Your task to perform on an android device: check data usage Image 0: 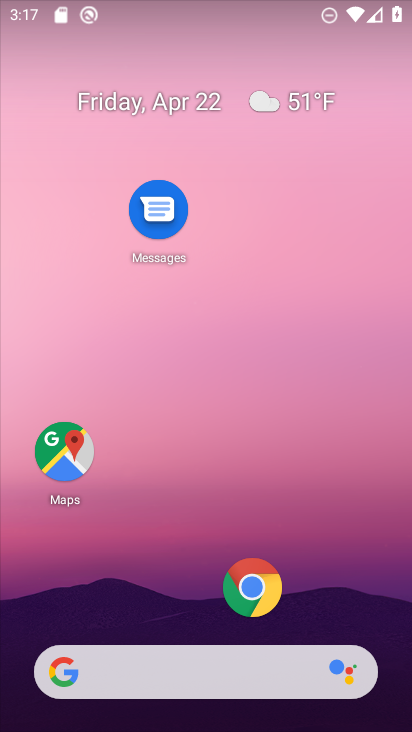
Step 0: drag from (185, 602) to (207, 210)
Your task to perform on an android device: check data usage Image 1: 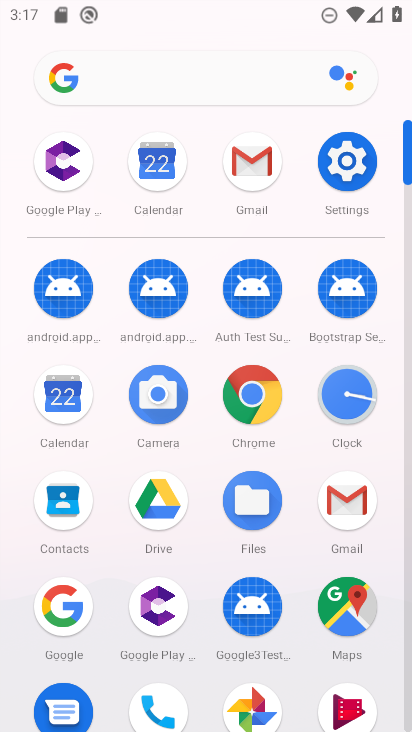
Step 1: click (331, 174)
Your task to perform on an android device: check data usage Image 2: 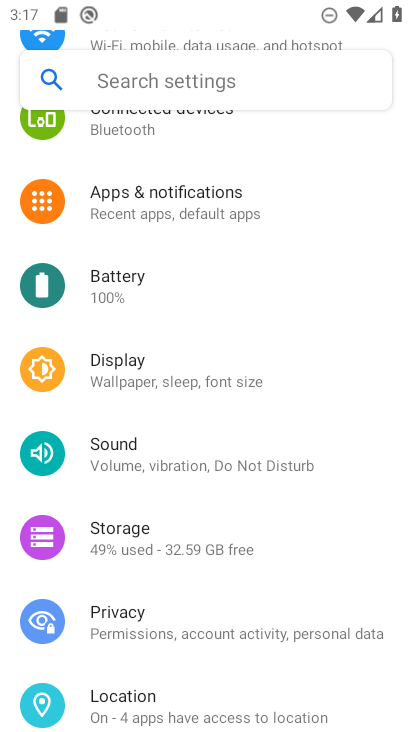
Step 2: drag from (206, 173) to (250, 620)
Your task to perform on an android device: check data usage Image 3: 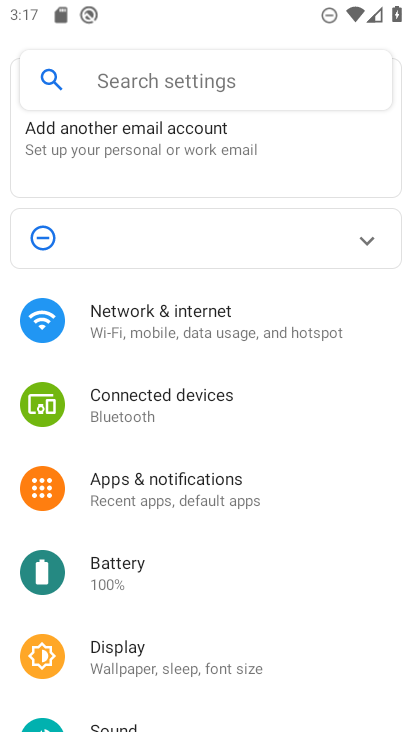
Step 3: click (187, 314)
Your task to perform on an android device: check data usage Image 4: 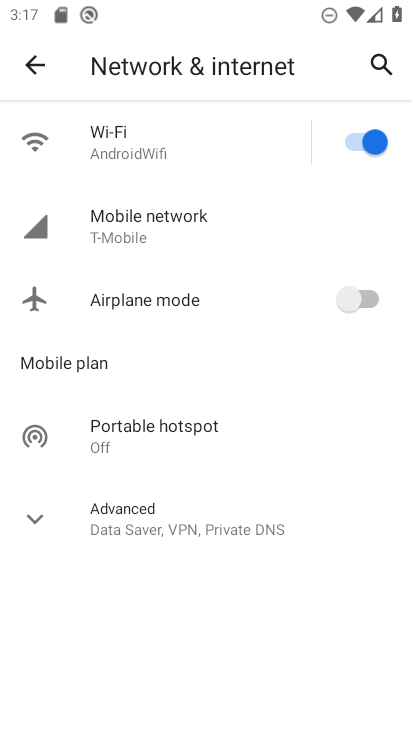
Step 4: click (145, 127)
Your task to perform on an android device: check data usage Image 5: 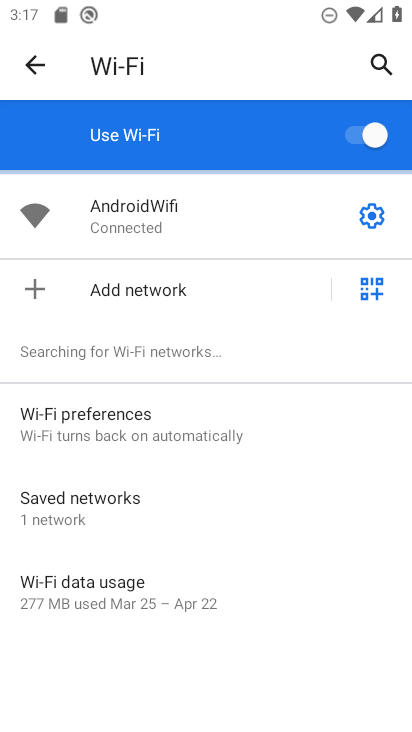
Step 5: press back button
Your task to perform on an android device: check data usage Image 6: 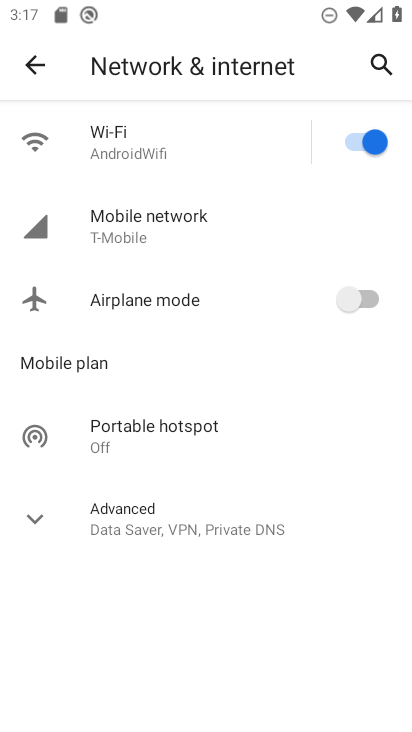
Step 6: click (164, 223)
Your task to perform on an android device: check data usage Image 7: 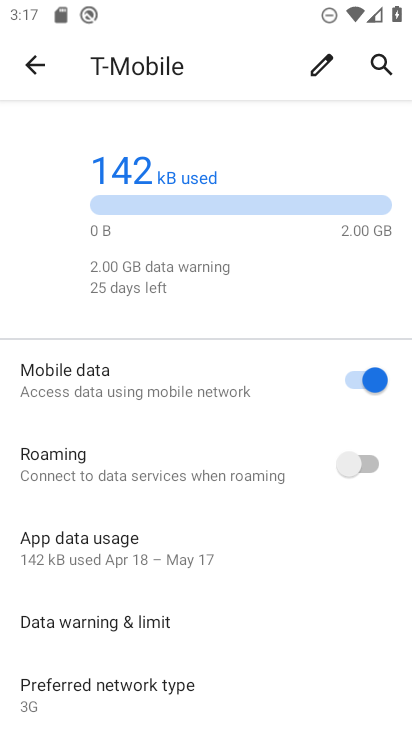
Step 7: drag from (192, 559) to (211, 424)
Your task to perform on an android device: check data usage Image 8: 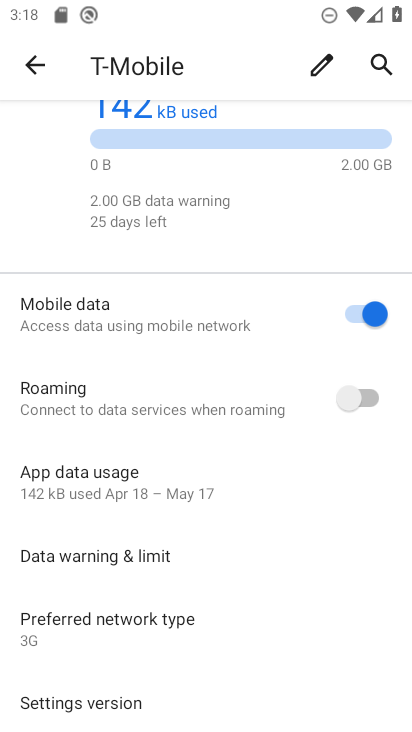
Step 8: click (165, 464)
Your task to perform on an android device: check data usage Image 9: 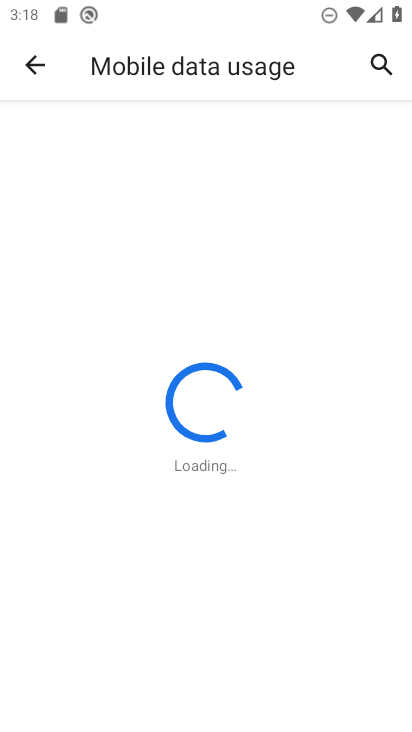
Step 9: task complete